Your task to perform on an android device: Open the phone app and click the voicemail tab. Image 0: 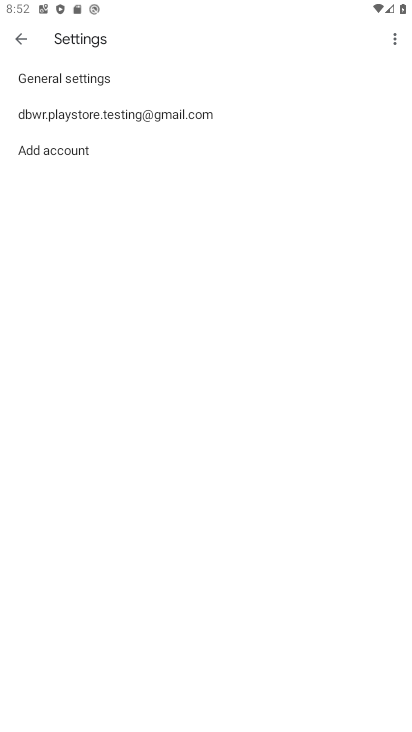
Step 0: press home button
Your task to perform on an android device: Open the phone app and click the voicemail tab. Image 1: 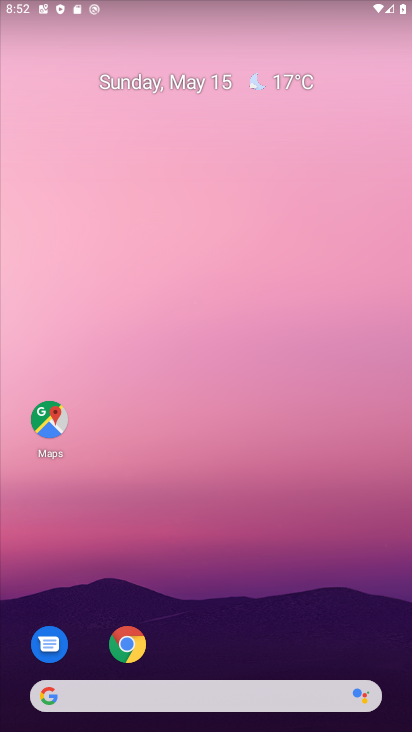
Step 1: drag from (194, 707) to (237, 301)
Your task to perform on an android device: Open the phone app and click the voicemail tab. Image 2: 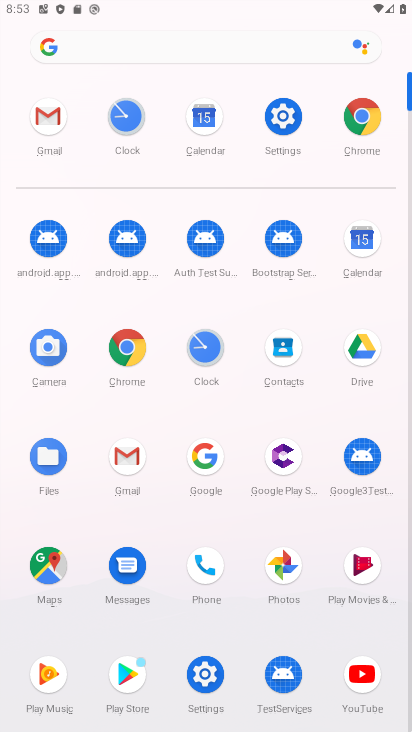
Step 2: click (207, 556)
Your task to perform on an android device: Open the phone app and click the voicemail tab. Image 3: 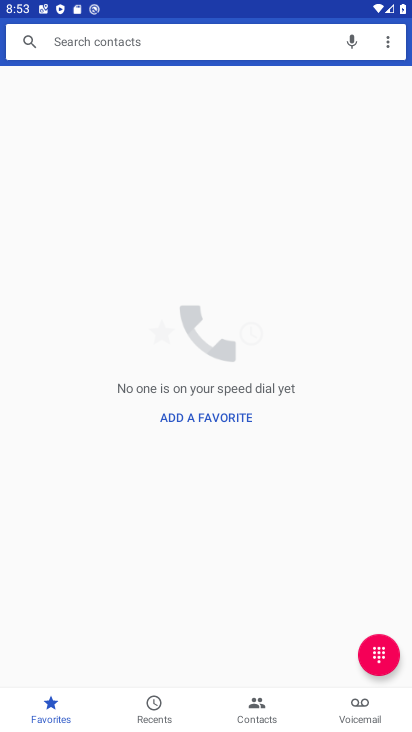
Step 3: click (349, 708)
Your task to perform on an android device: Open the phone app and click the voicemail tab. Image 4: 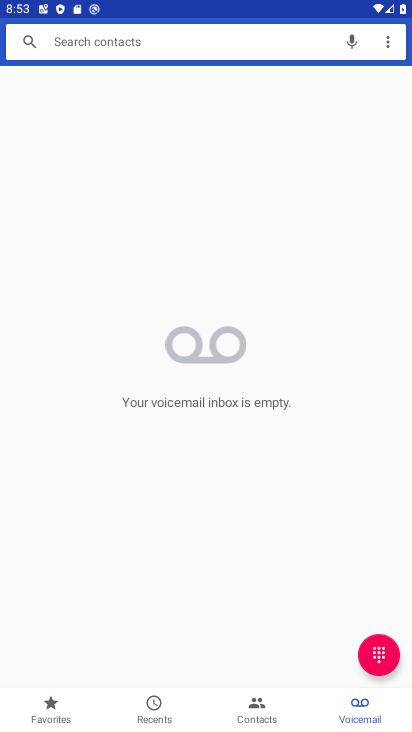
Step 4: task complete